Your task to perform on an android device: Show me popular games on the Play Store Image 0: 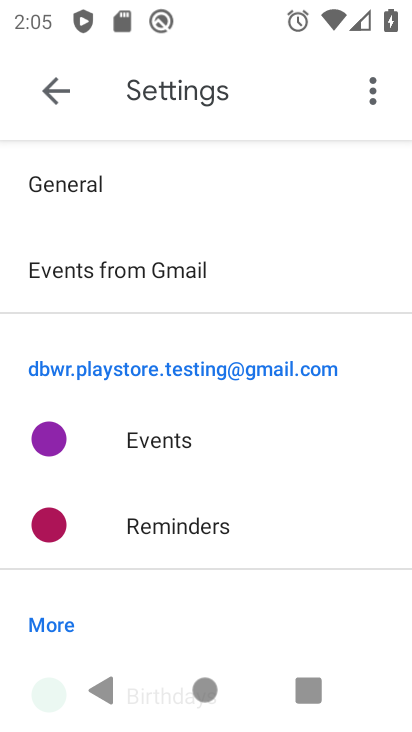
Step 0: press home button
Your task to perform on an android device: Show me popular games on the Play Store Image 1: 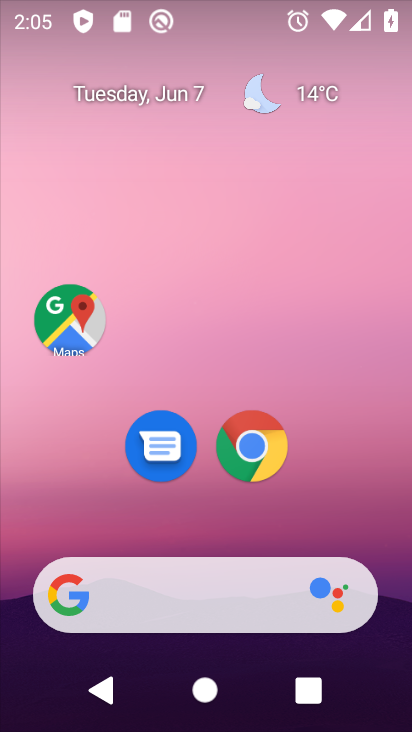
Step 1: drag from (391, 597) to (381, 54)
Your task to perform on an android device: Show me popular games on the Play Store Image 2: 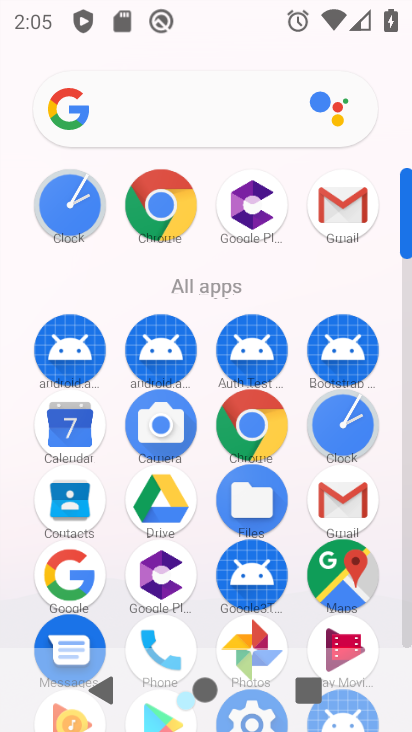
Step 2: click (407, 632)
Your task to perform on an android device: Show me popular games on the Play Store Image 3: 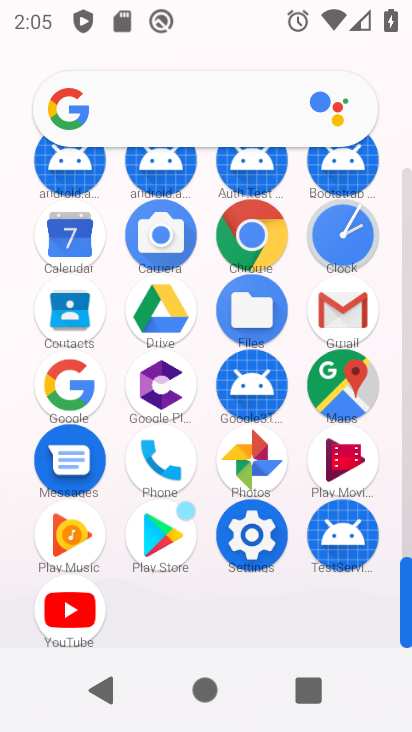
Step 3: click (162, 528)
Your task to perform on an android device: Show me popular games on the Play Store Image 4: 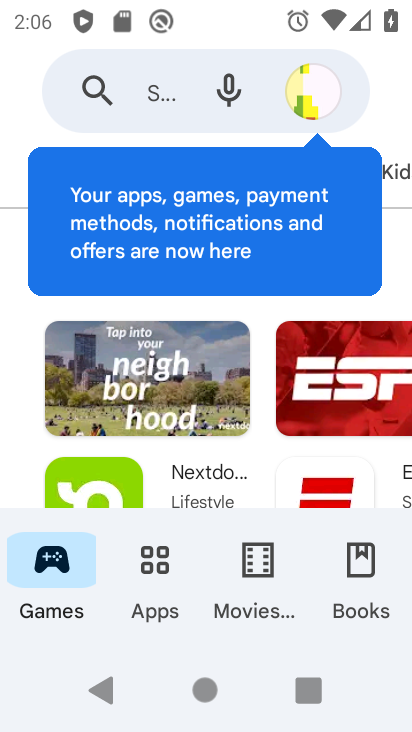
Step 4: drag from (253, 461) to (235, 108)
Your task to perform on an android device: Show me popular games on the Play Store Image 5: 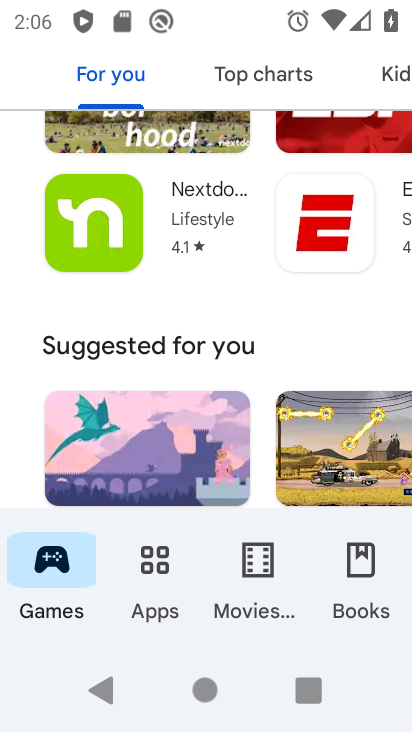
Step 5: drag from (262, 437) to (214, 30)
Your task to perform on an android device: Show me popular games on the Play Store Image 6: 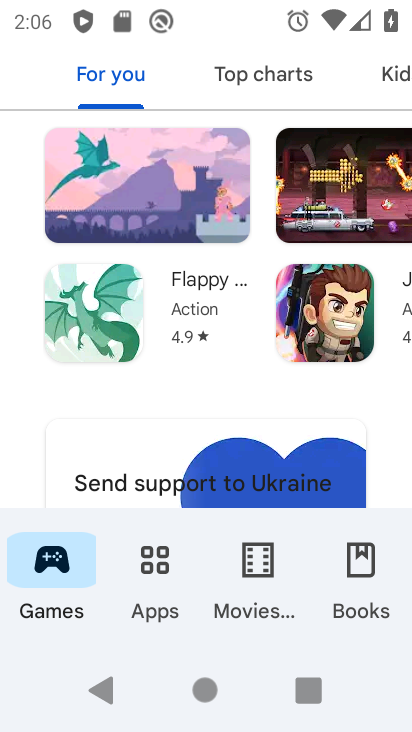
Step 6: drag from (245, 413) to (208, 25)
Your task to perform on an android device: Show me popular games on the Play Store Image 7: 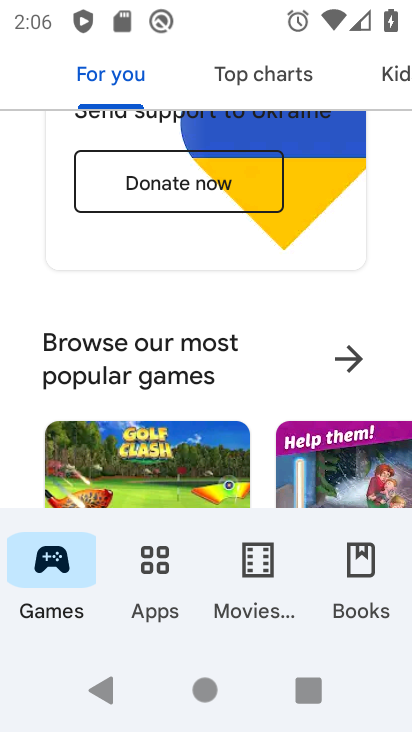
Step 7: click (355, 356)
Your task to perform on an android device: Show me popular games on the Play Store Image 8: 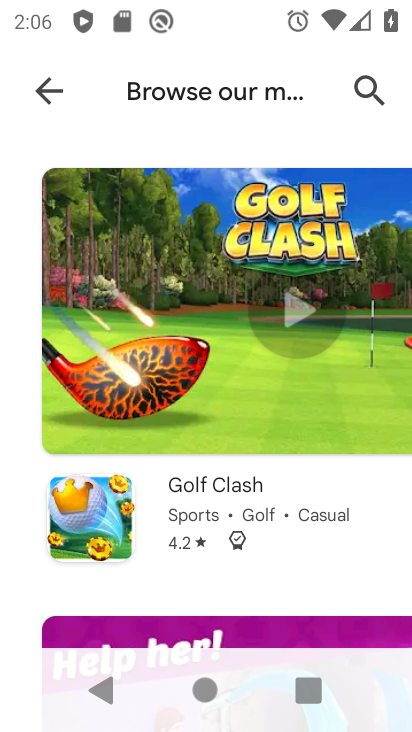
Step 8: task complete